Your task to perform on an android device: snooze an email in the gmail app Image 0: 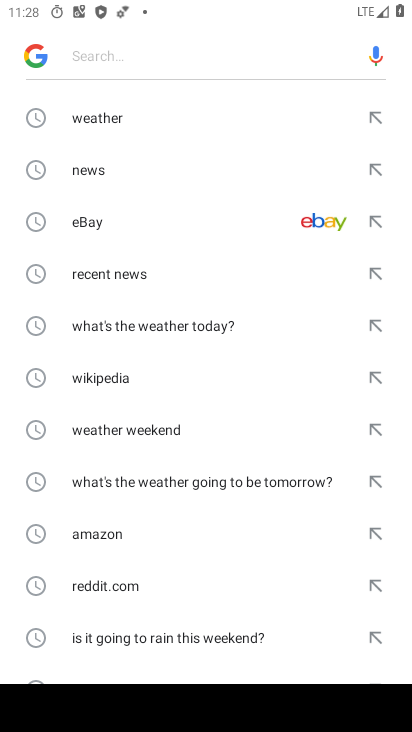
Step 0: press home button
Your task to perform on an android device: snooze an email in the gmail app Image 1: 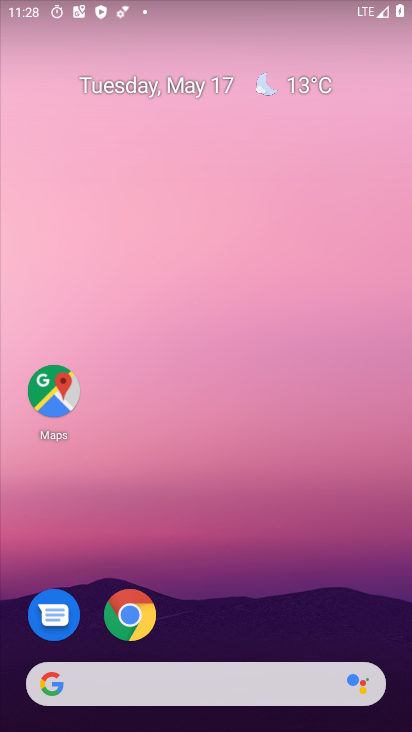
Step 1: drag from (146, 689) to (235, 137)
Your task to perform on an android device: snooze an email in the gmail app Image 2: 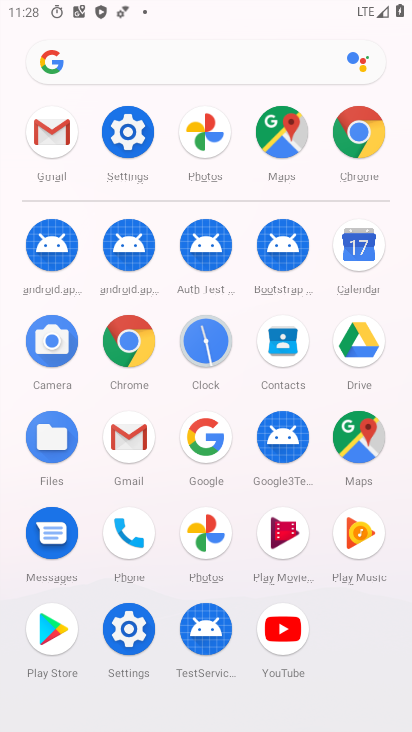
Step 2: click (53, 144)
Your task to perform on an android device: snooze an email in the gmail app Image 3: 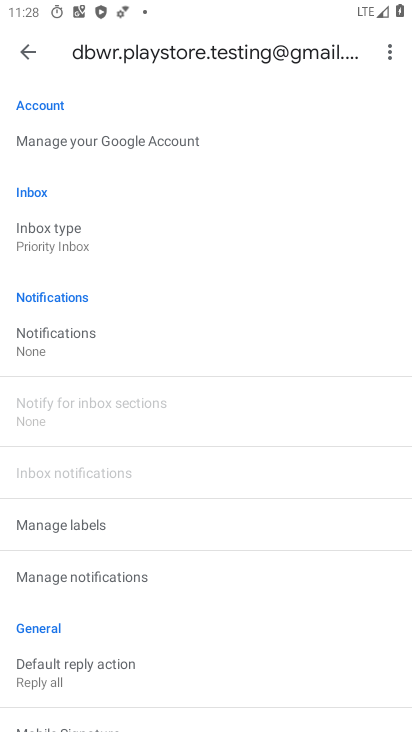
Step 3: click (33, 52)
Your task to perform on an android device: snooze an email in the gmail app Image 4: 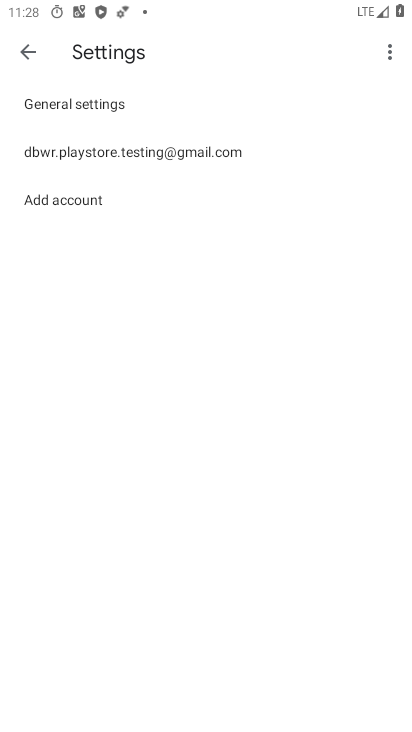
Step 4: click (33, 53)
Your task to perform on an android device: snooze an email in the gmail app Image 5: 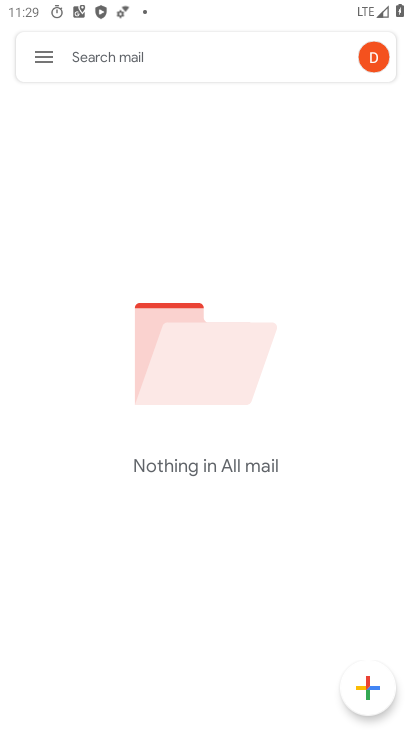
Step 5: task complete